Your task to perform on an android device: Go to display settings Image 0: 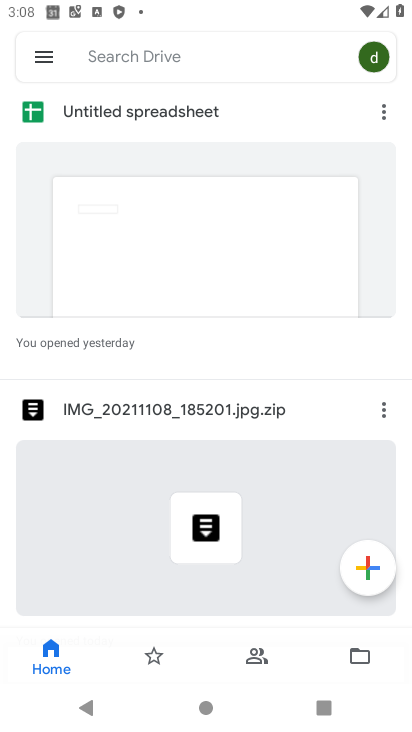
Step 0: press home button
Your task to perform on an android device: Go to display settings Image 1: 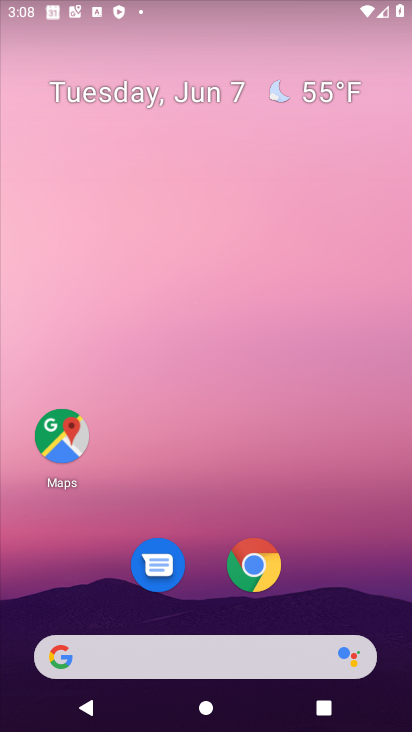
Step 1: drag from (265, 576) to (304, 58)
Your task to perform on an android device: Go to display settings Image 2: 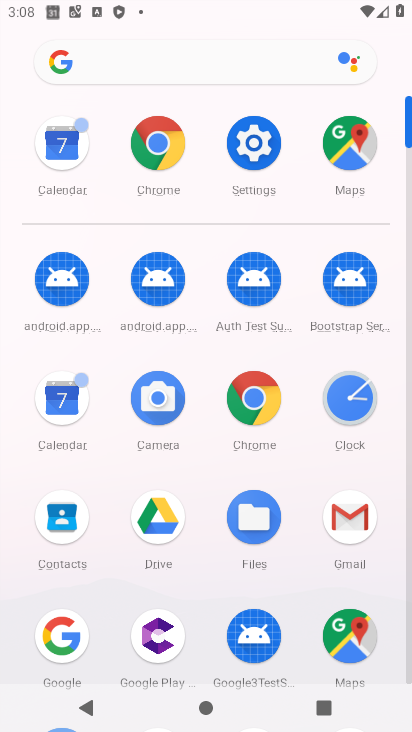
Step 2: click (249, 157)
Your task to perform on an android device: Go to display settings Image 3: 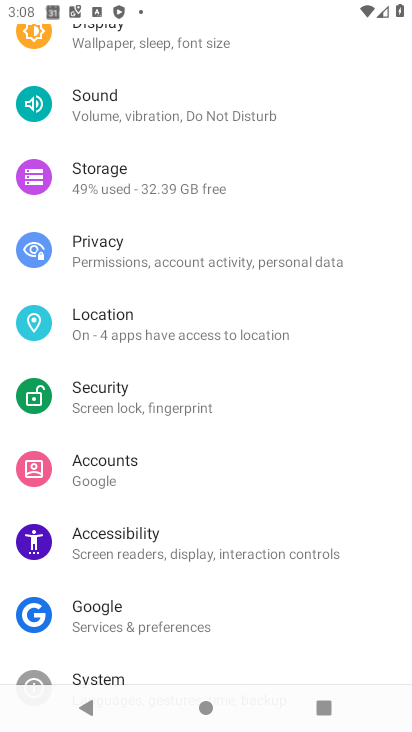
Step 3: drag from (150, 206) to (177, 628)
Your task to perform on an android device: Go to display settings Image 4: 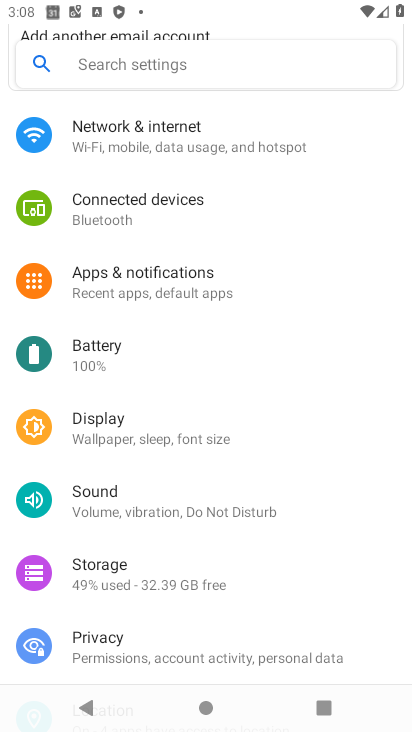
Step 4: click (137, 418)
Your task to perform on an android device: Go to display settings Image 5: 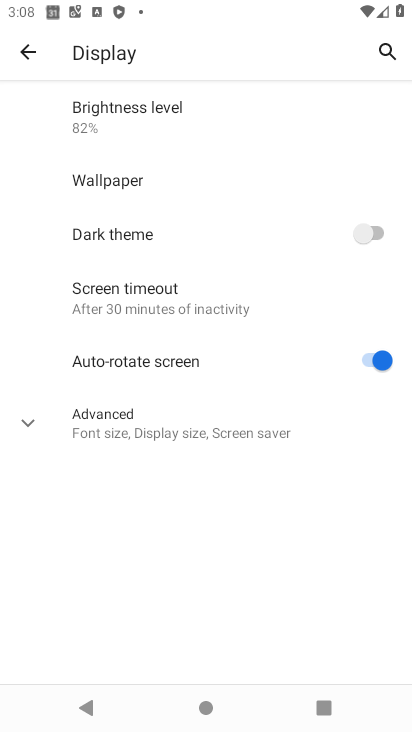
Step 5: task complete